Your task to perform on an android device: Empty the shopping cart on bestbuy. Image 0: 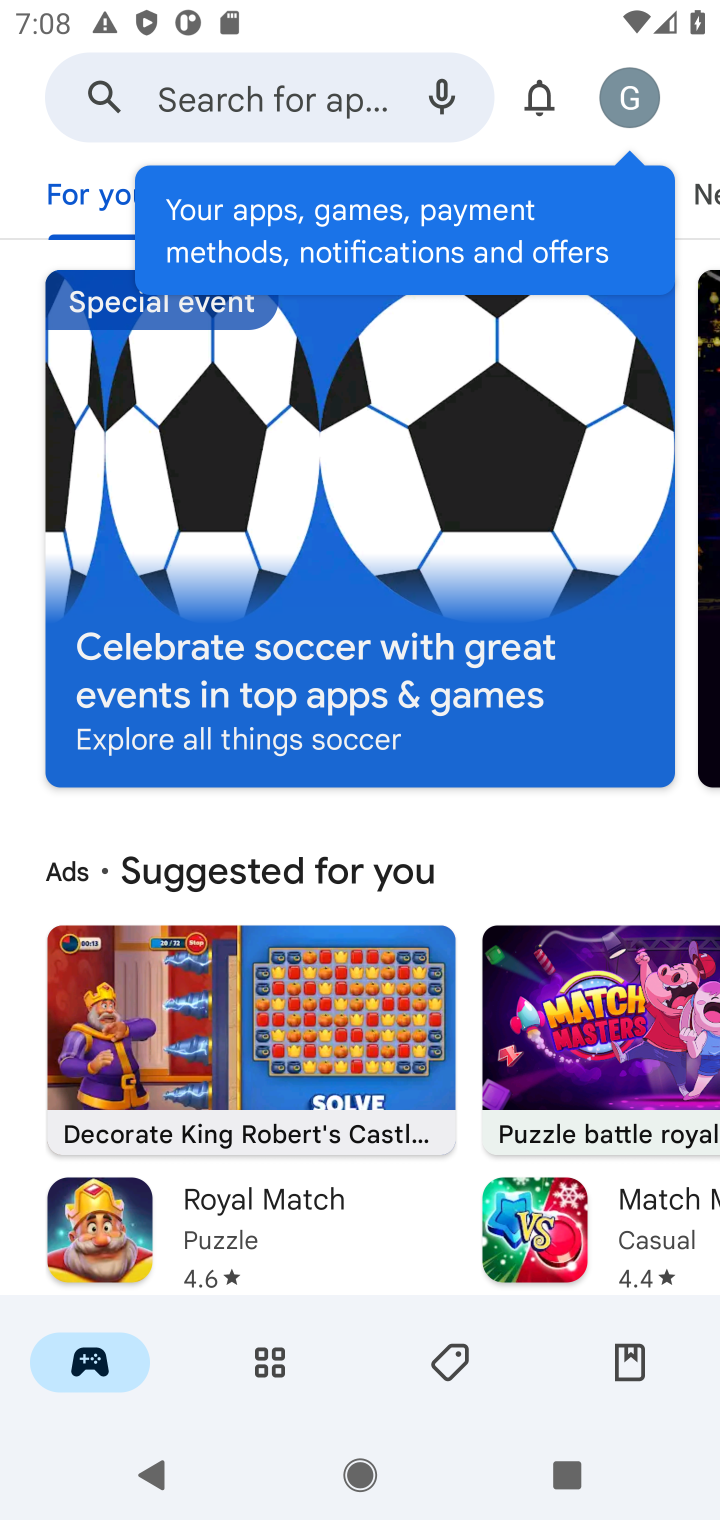
Step 0: press home button
Your task to perform on an android device: Empty the shopping cart on bestbuy. Image 1: 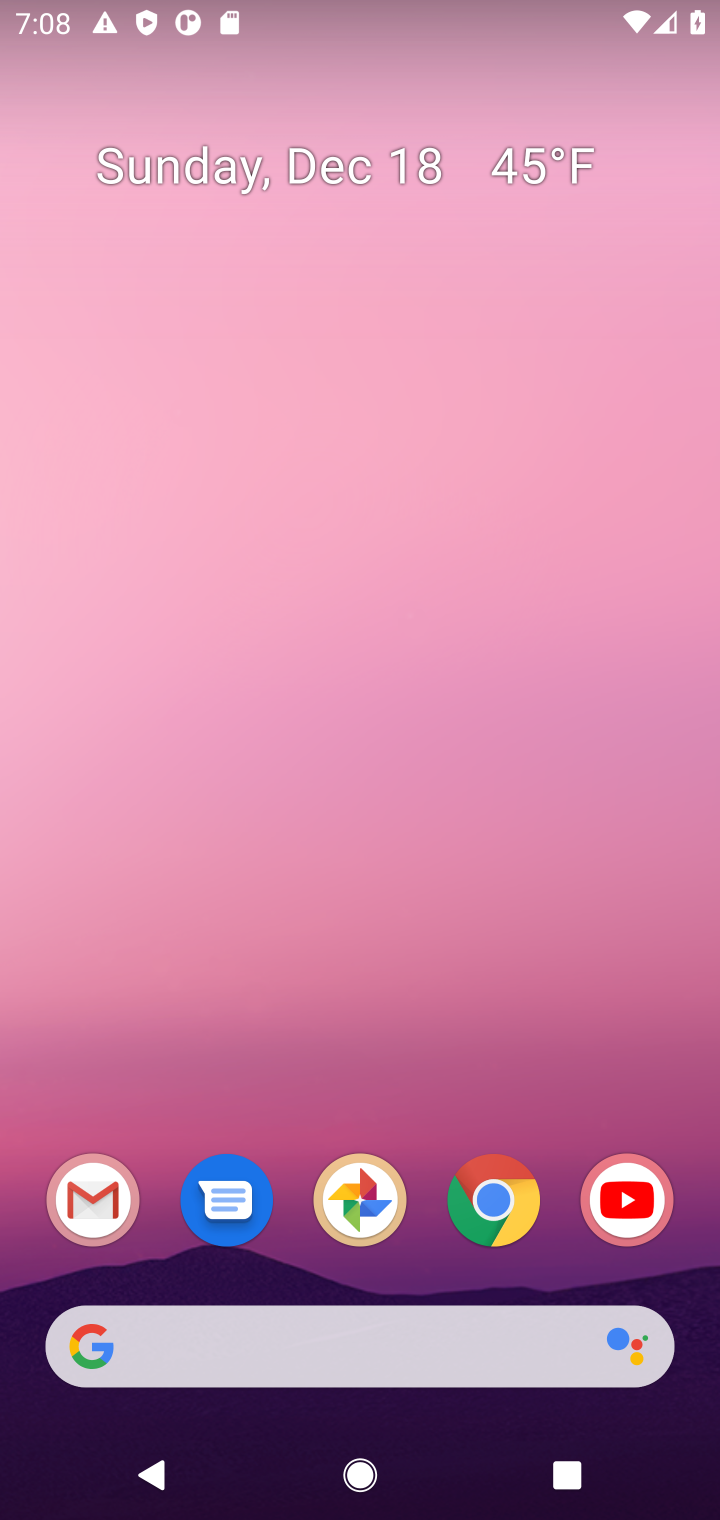
Step 1: click (502, 1197)
Your task to perform on an android device: Empty the shopping cart on bestbuy. Image 2: 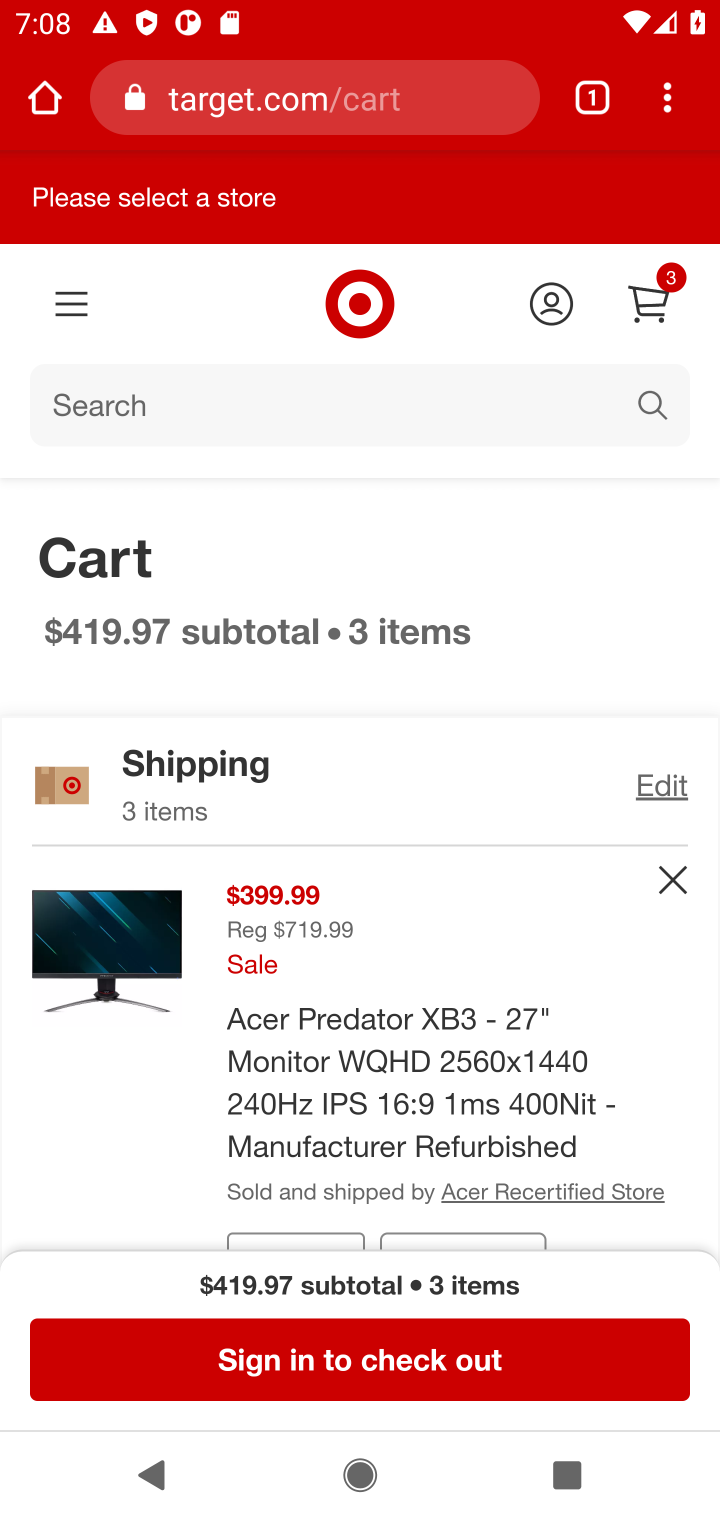
Step 2: click (221, 116)
Your task to perform on an android device: Empty the shopping cart on bestbuy. Image 3: 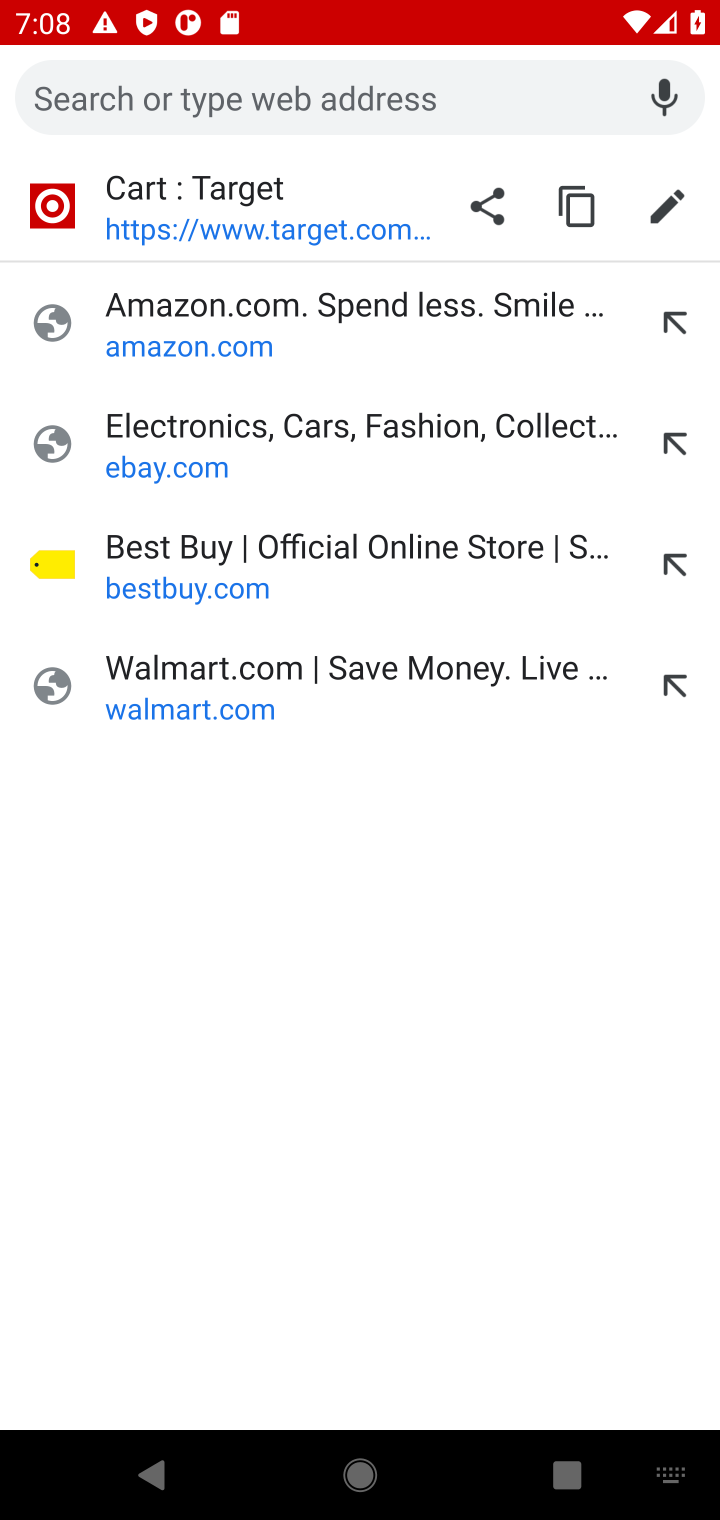
Step 3: click (173, 598)
Your task to perform on an android device: Empty the shopping cart on bestbuy. Image 4: 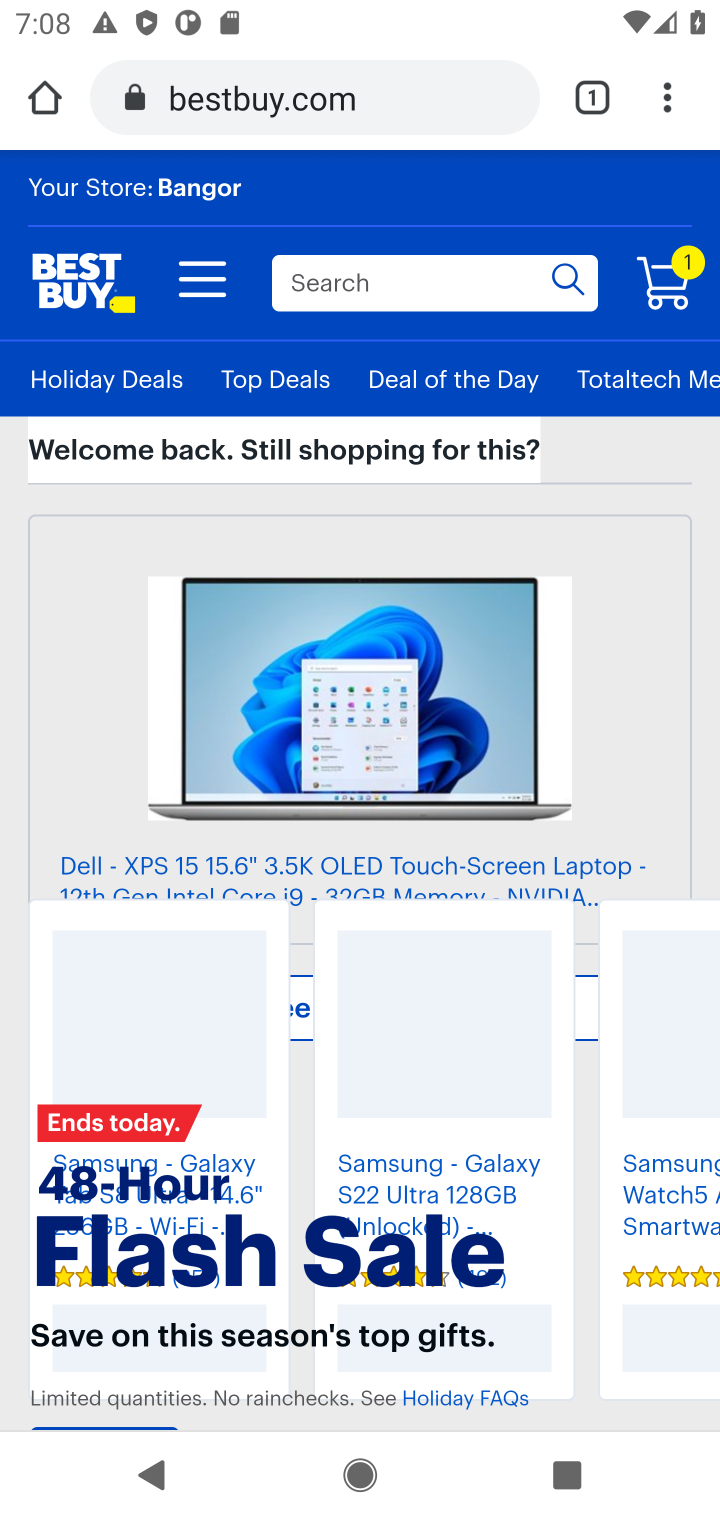
Step 4: click (678, 296)
Your task to perform on an android device: Empty the shopping cart on bestbuy. Image 5: 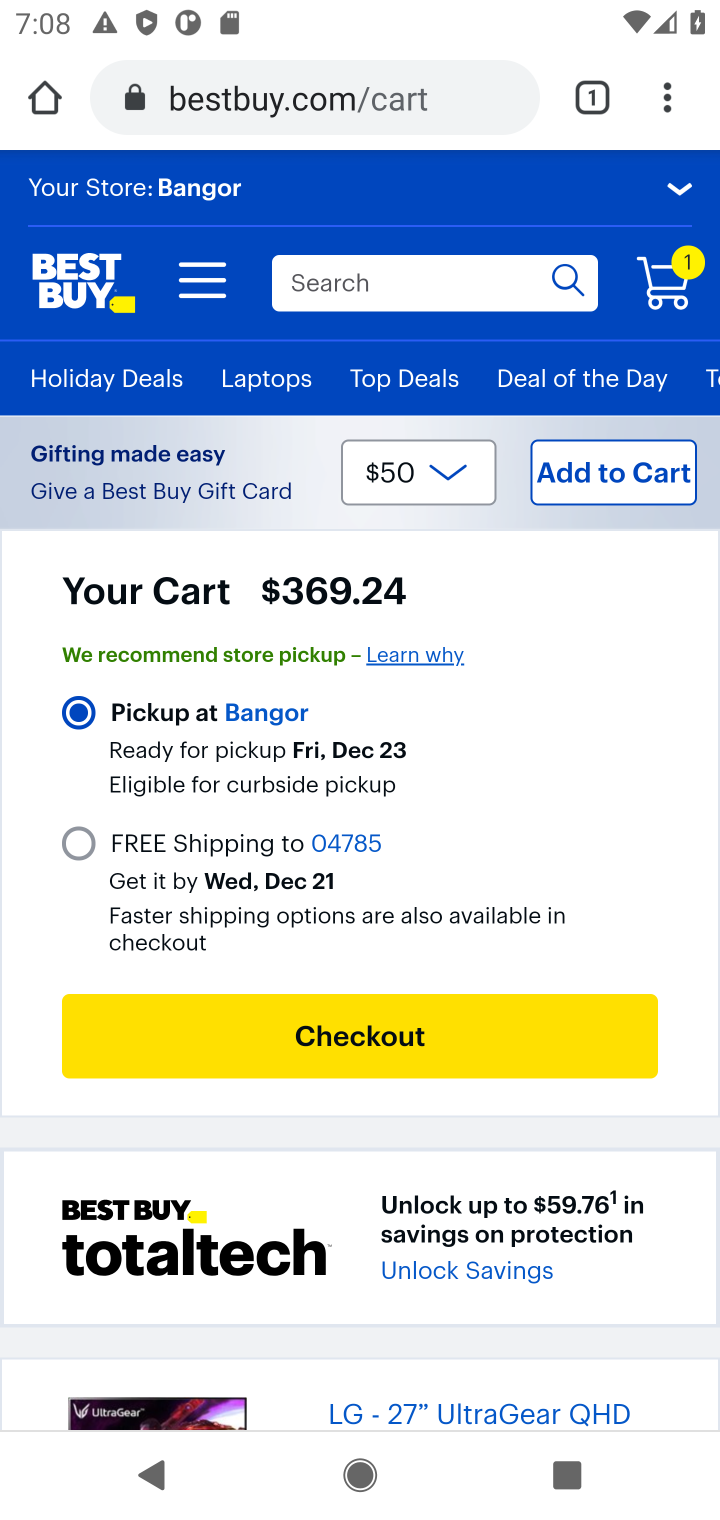
Step 5: drag from (459, 954) to (401, 239)
Your task to perform on an android device: Empty the shopping cart on bestbuy. Image 6: 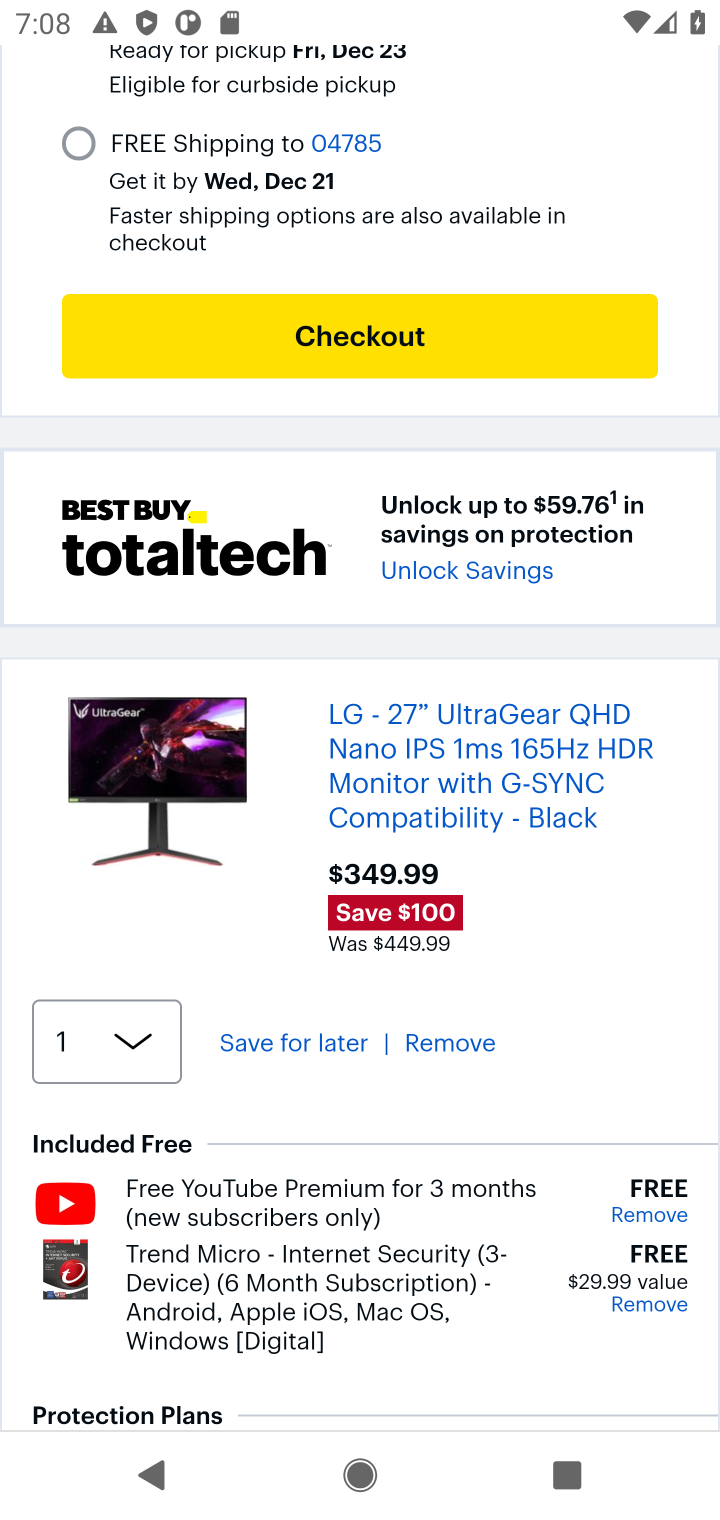
Step 6: click (428, 1039)
Your task to perform on an android device: Empty the shopping cart on bestbuy. Image 7: 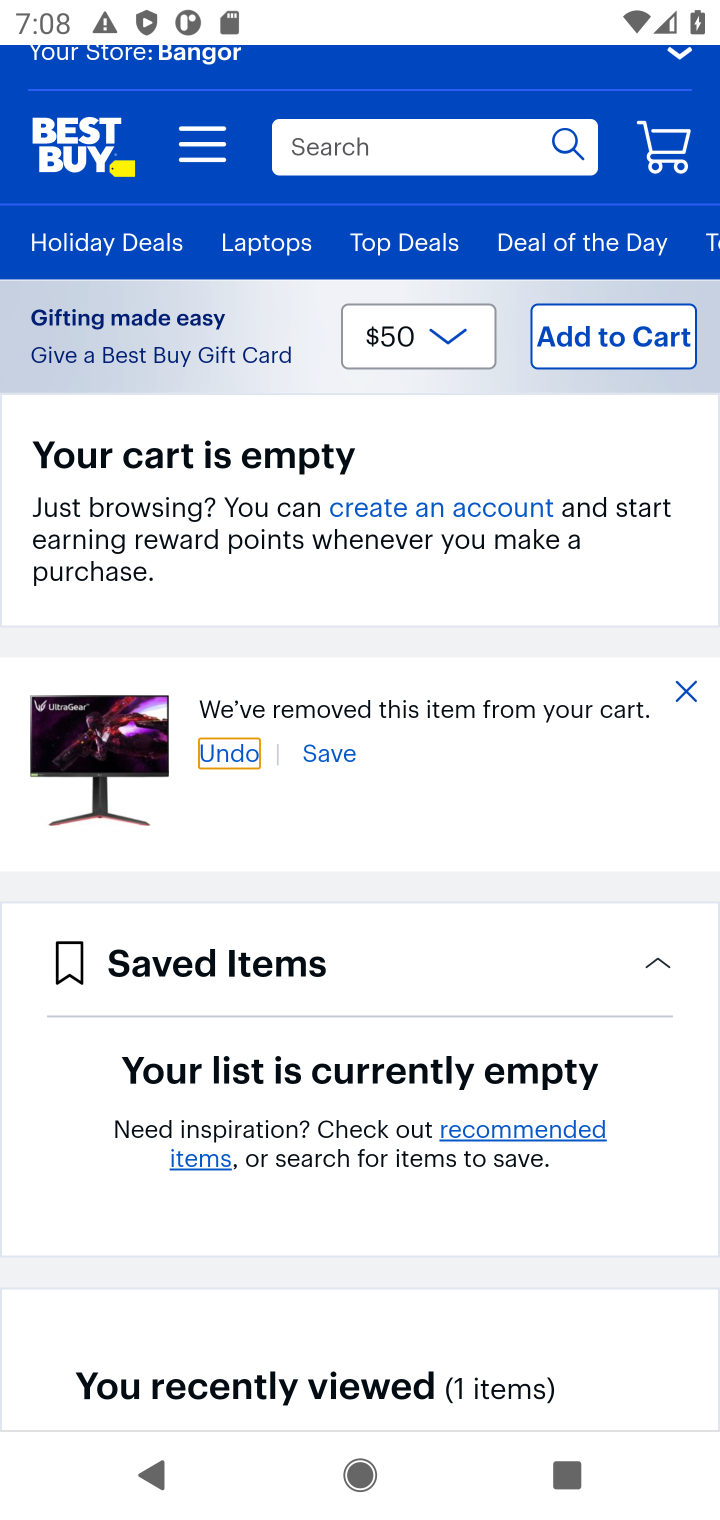
Step 7: task complete